Your task to perform on an android device: turn off javascript in the chrome app Image 0: 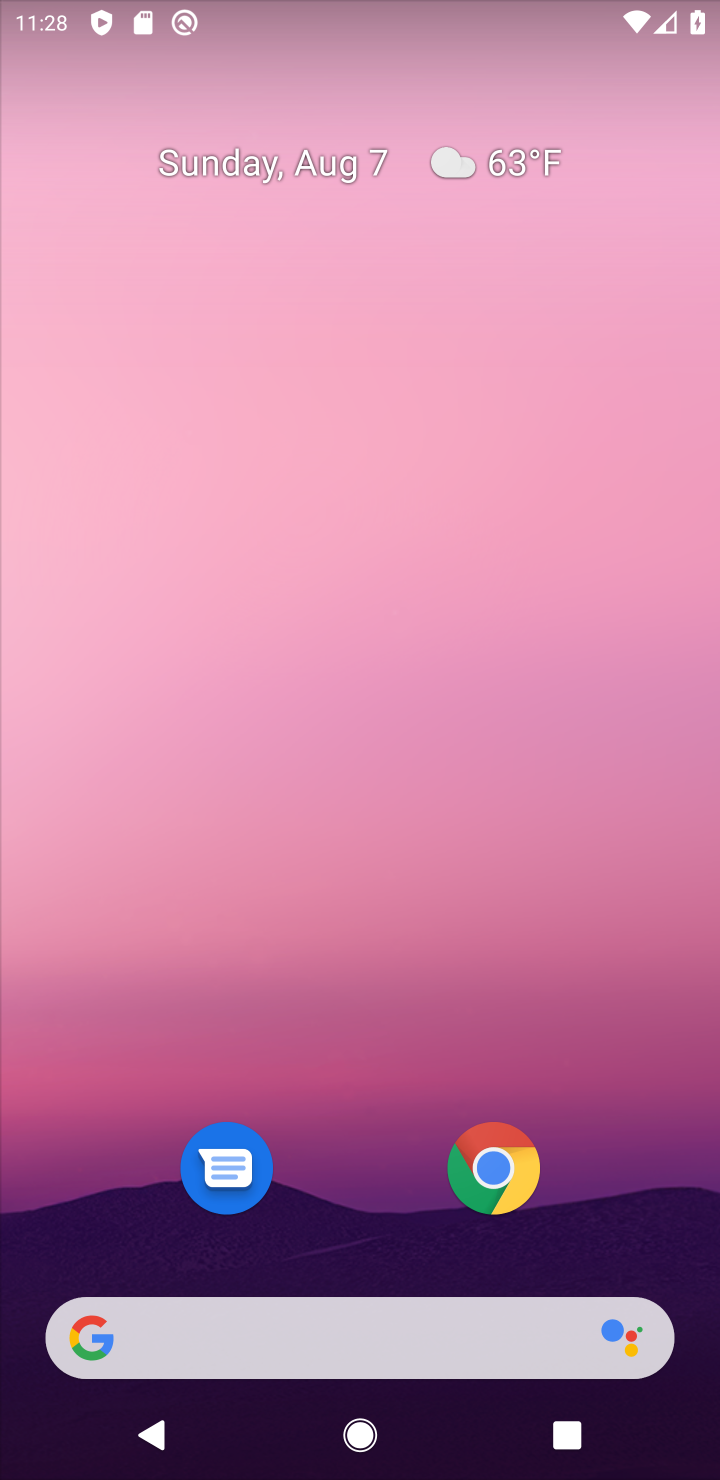
Step 0: press home button
Your task to perform on an android device: turn off javascript in the chrome app Image 1: 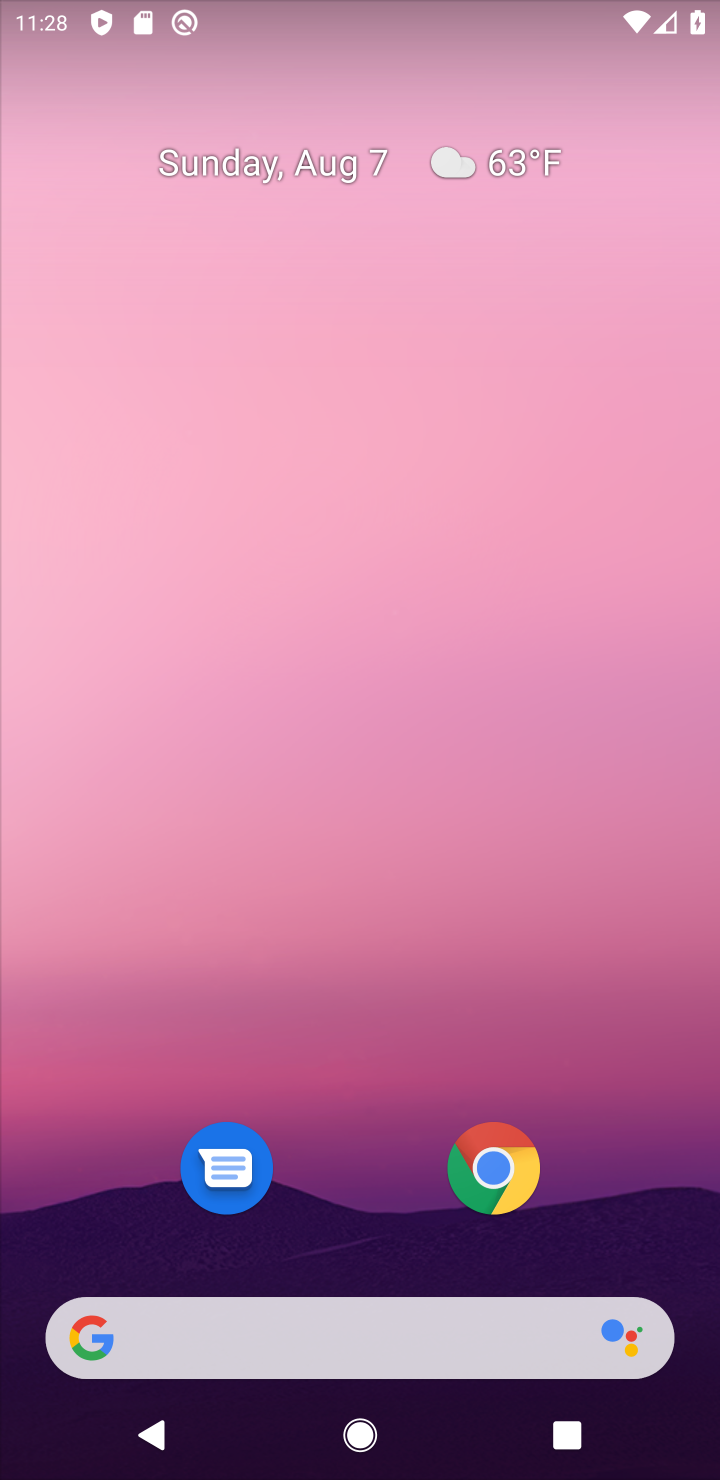
Step 1: click (483, 1194)
Your task to perform on an android device: turn off javascript in the chrome app Image 2: 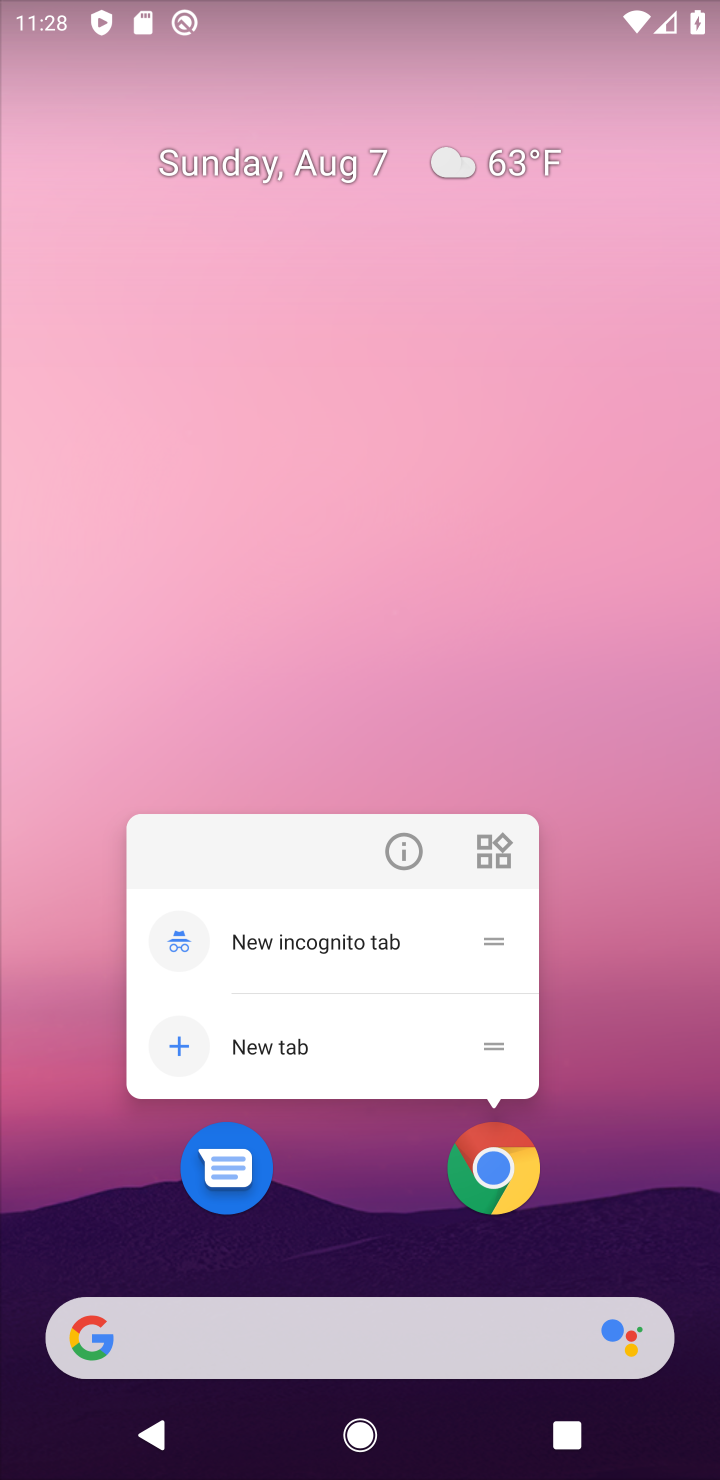
Step 2: click (483, 1194)
Your task to perform on an android device: turn off javascript in the chrome app Image 3: 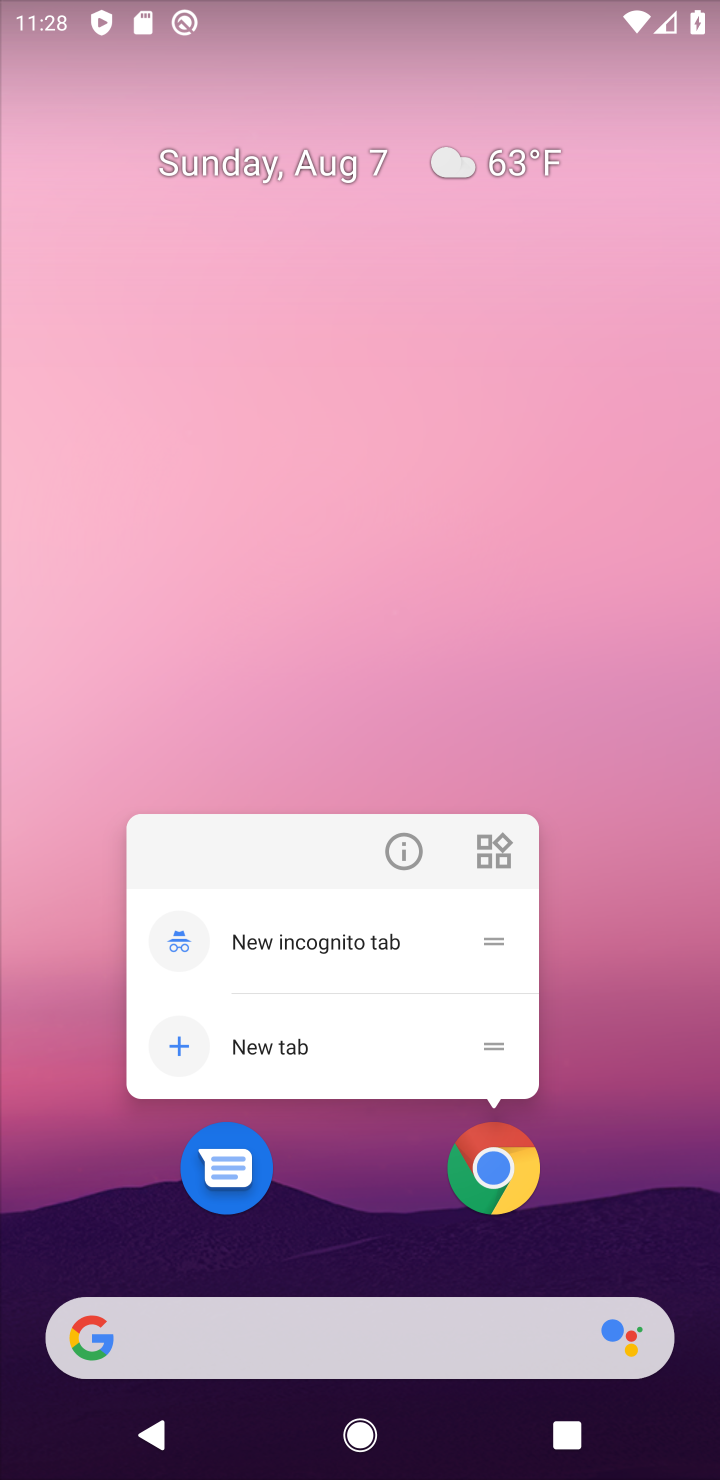
Step 3: click (489, 1187)
Your task to perform on an android device: turn off javascript in the chrome app Image 4: 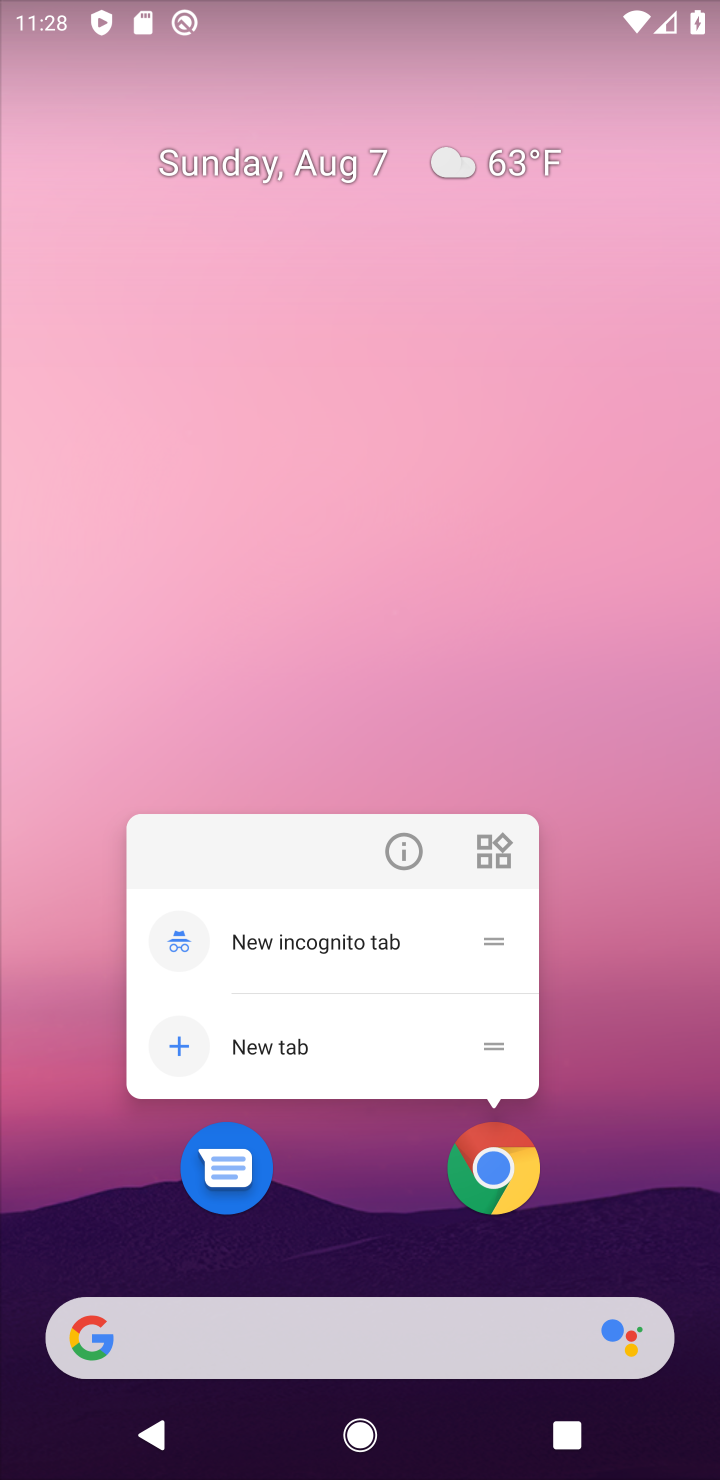
Step 4: click (491, 1174)
Your task to perform on an android device: turn off javascript in the chrome app Image 5: 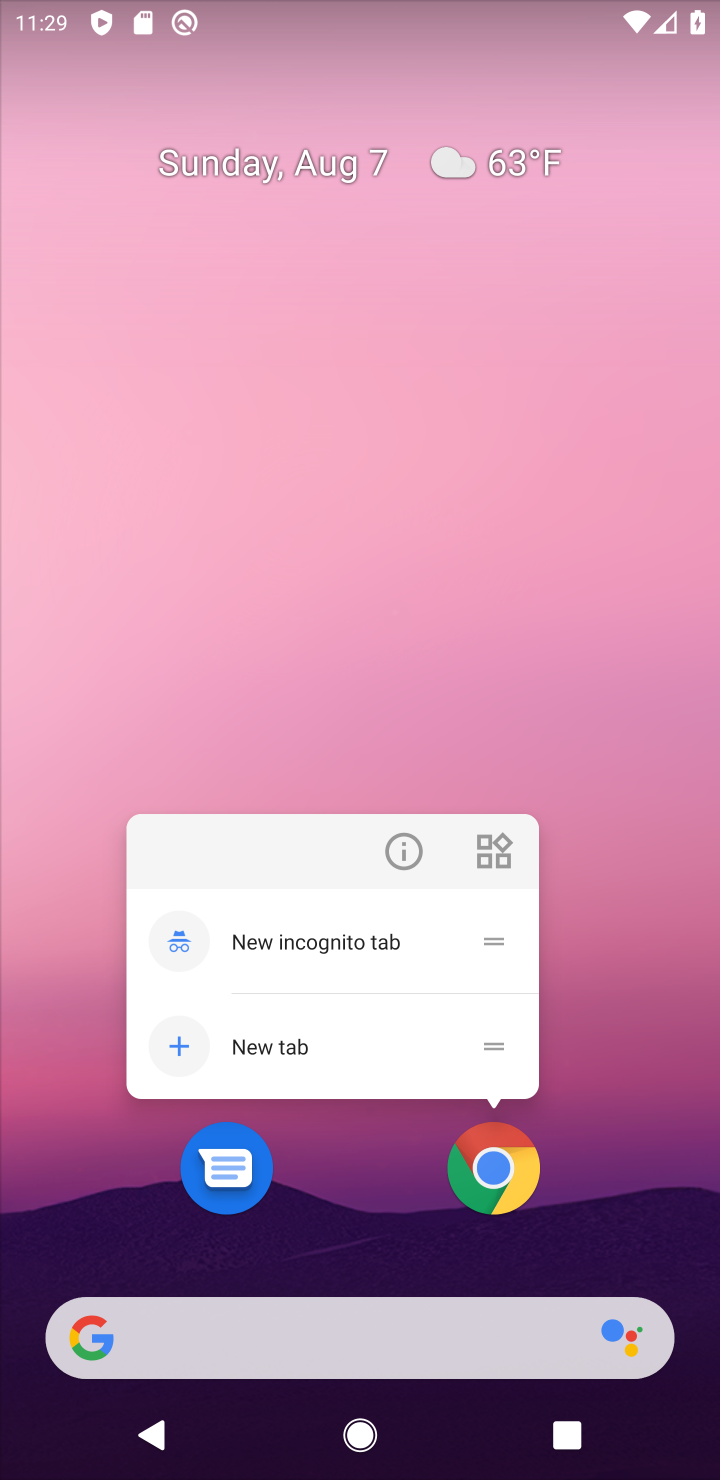
Step 5: drag from (641, 1186) to (455, 97)
Your task to perform on an android device: turn off javascript in the chrome app Image 6: 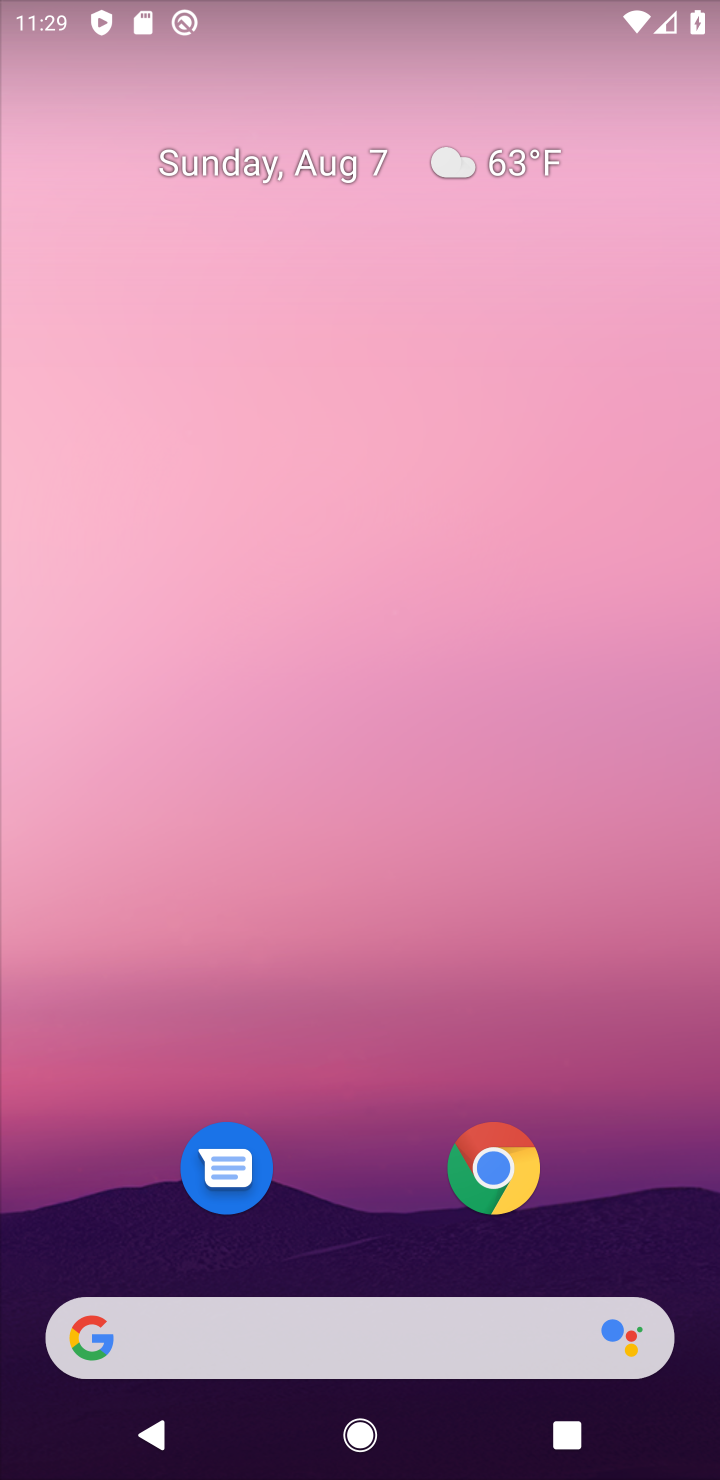
Step 6: drag from (346, 1252) to (272, 81)
Your task to perform on an android device: turn off javascript in the chrome app Image 7: 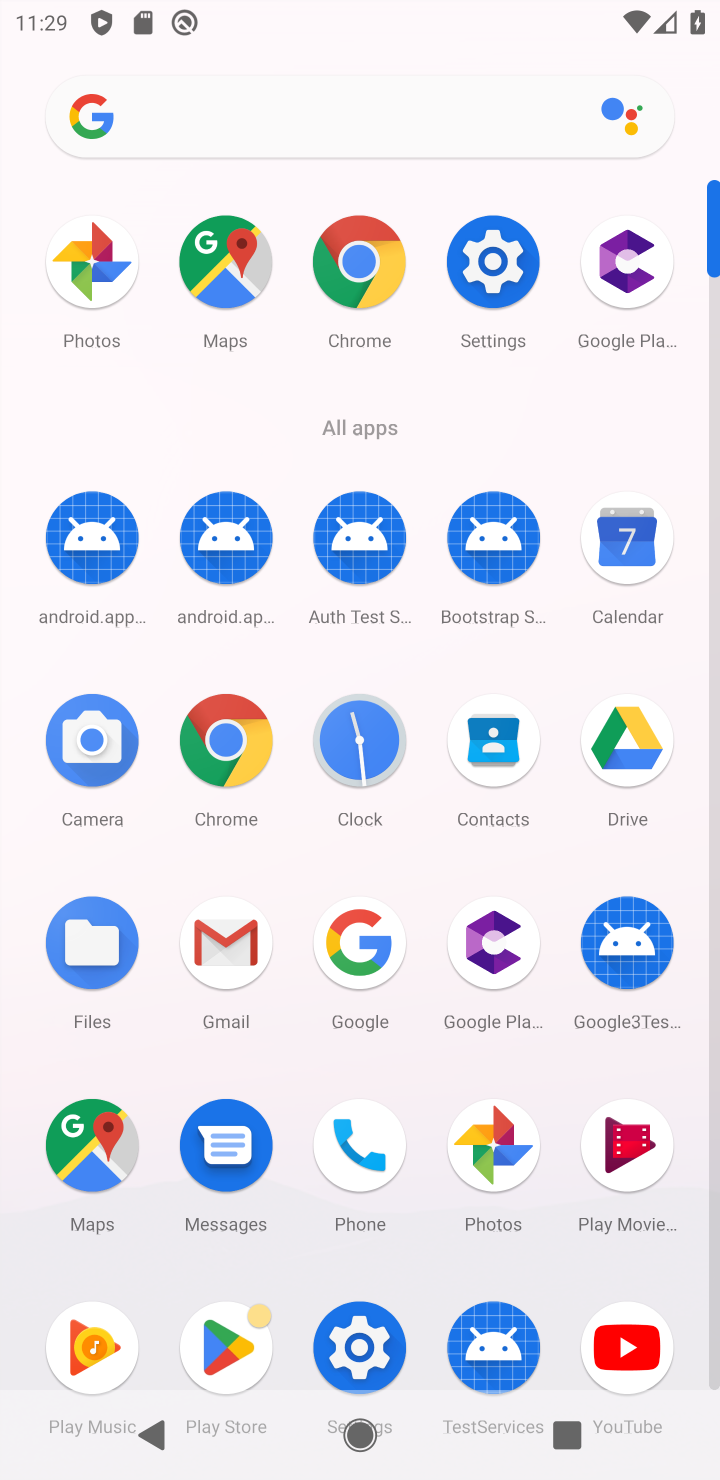
Step 7: click (349, 285)
Your task to perform on an android device: turn off javascript in the chrome app Image 8: 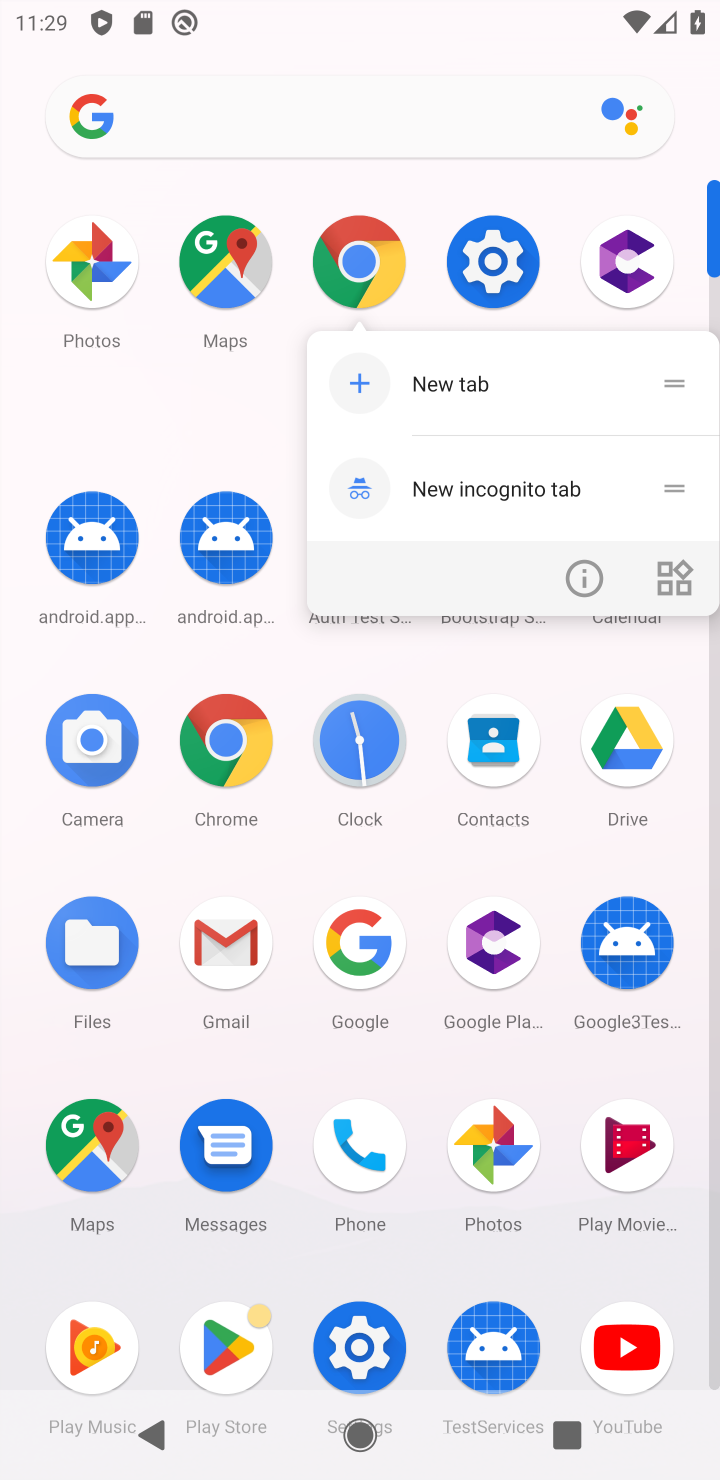
Step 8: click (349, 285)
Your task to perform on an android device: turn off javascript in the chrome app Image 9: 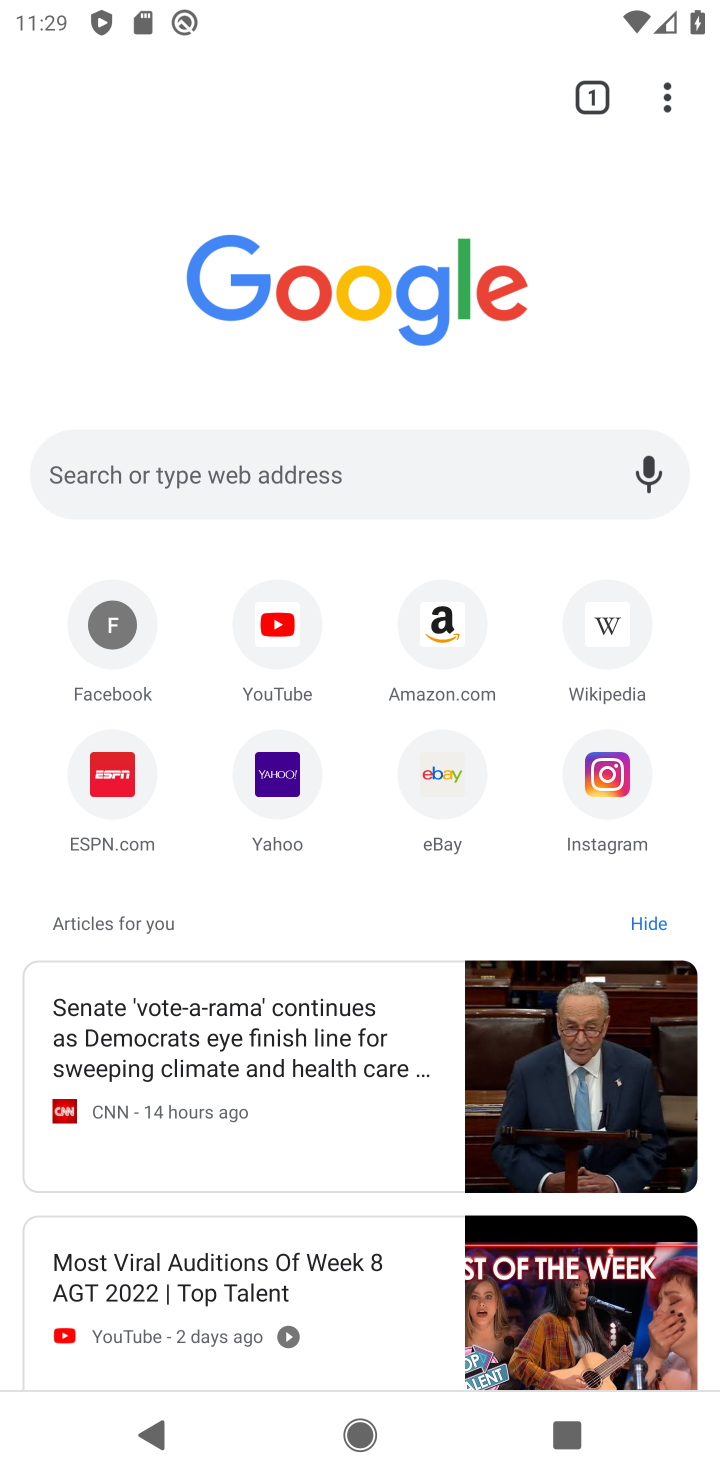
Step 9: drag from (668, 93) to (311, 926)
Your task to perform on an android device: turn off javascript in the chrome app Image 10: 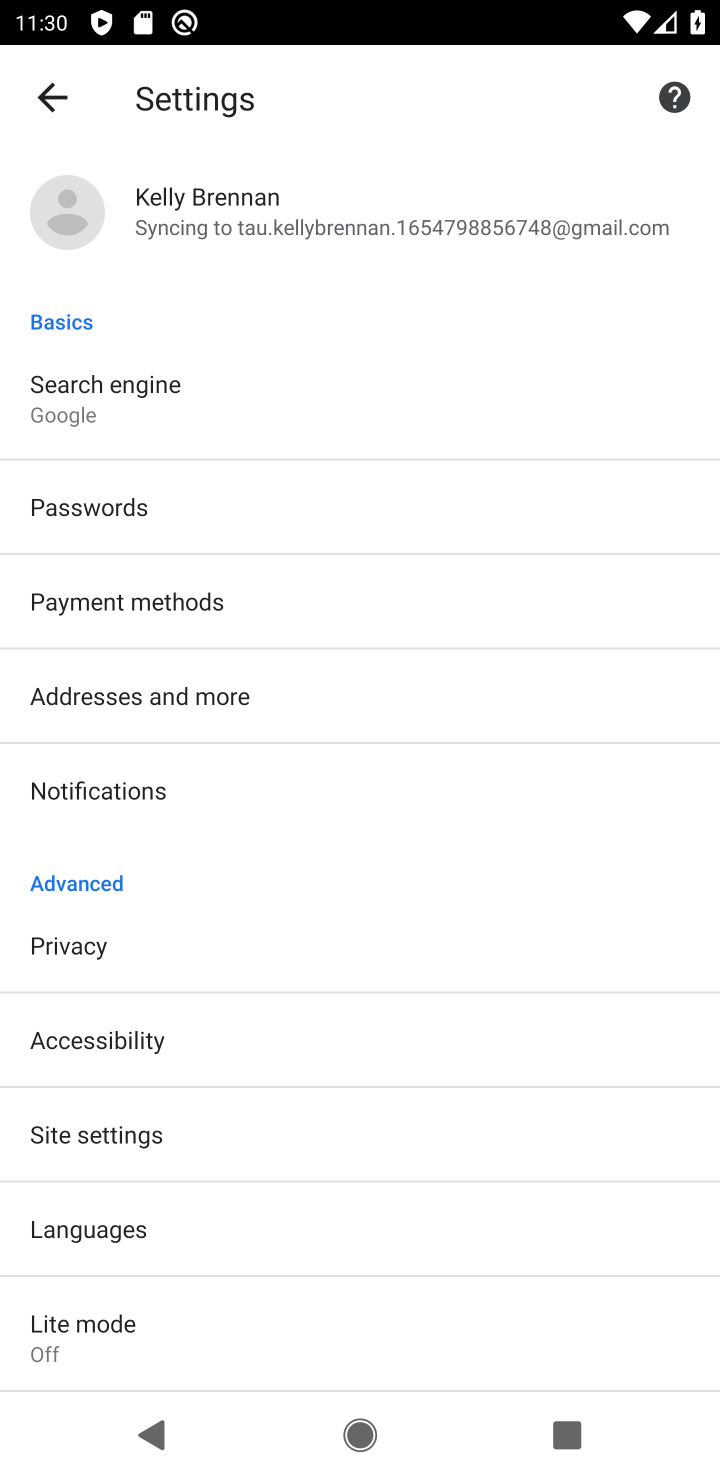
Step 10: drag from (441, 1187) to (354, 314)
Your task to perform on an android device: turn off javascript in the chrome app Image 11: 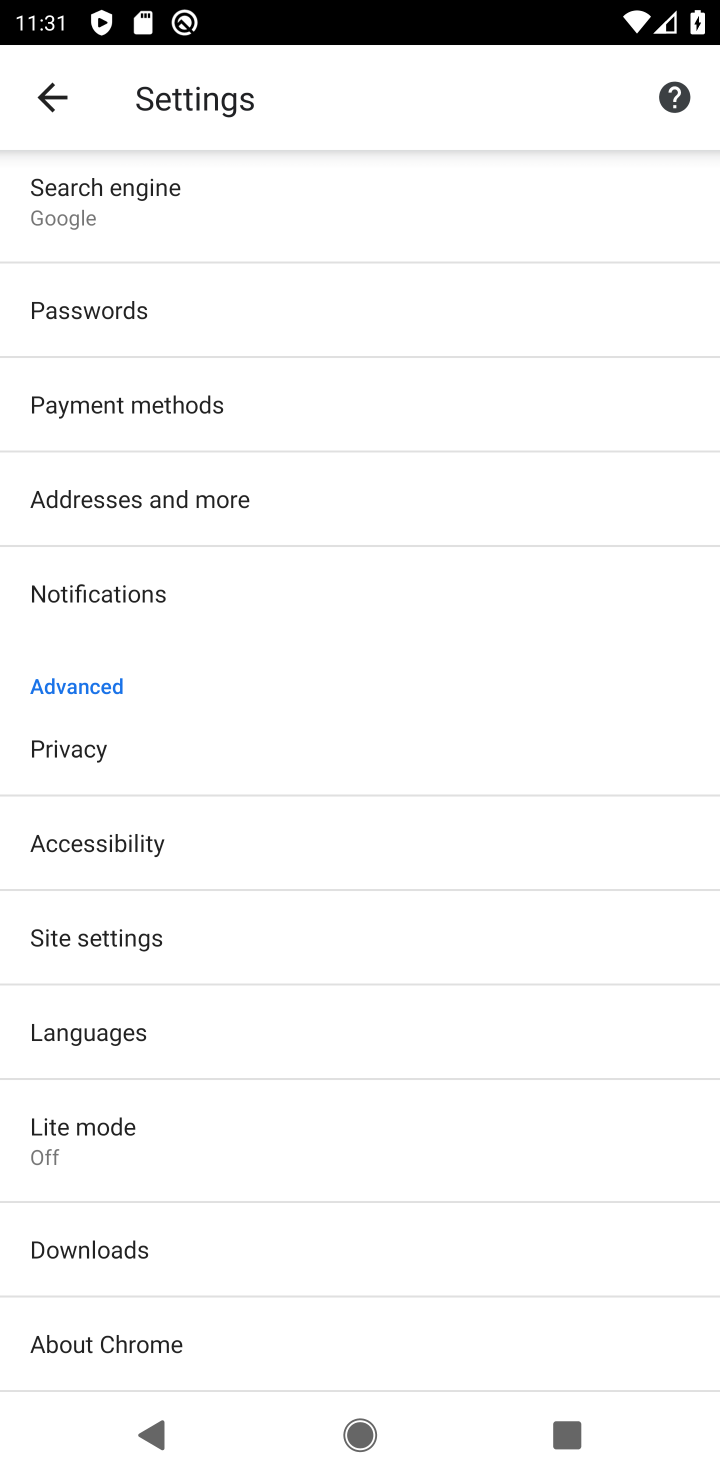
Step 11: click (110, 940)
Your task to perform on an android device: turn off javascript in the chrome app Image 12: 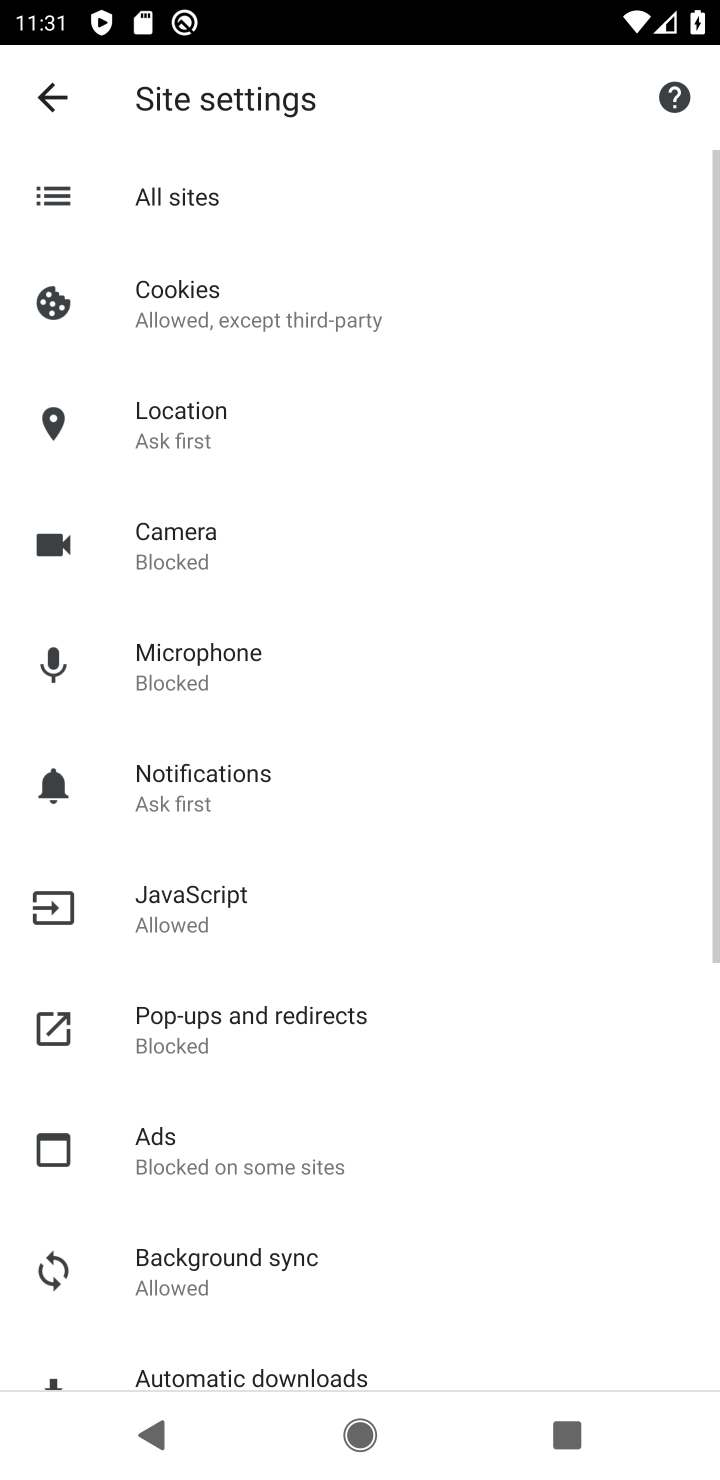
Step 12: click (154, 915)
Your task to perform on an android device: turn off javascript in the chrome app Image 13: 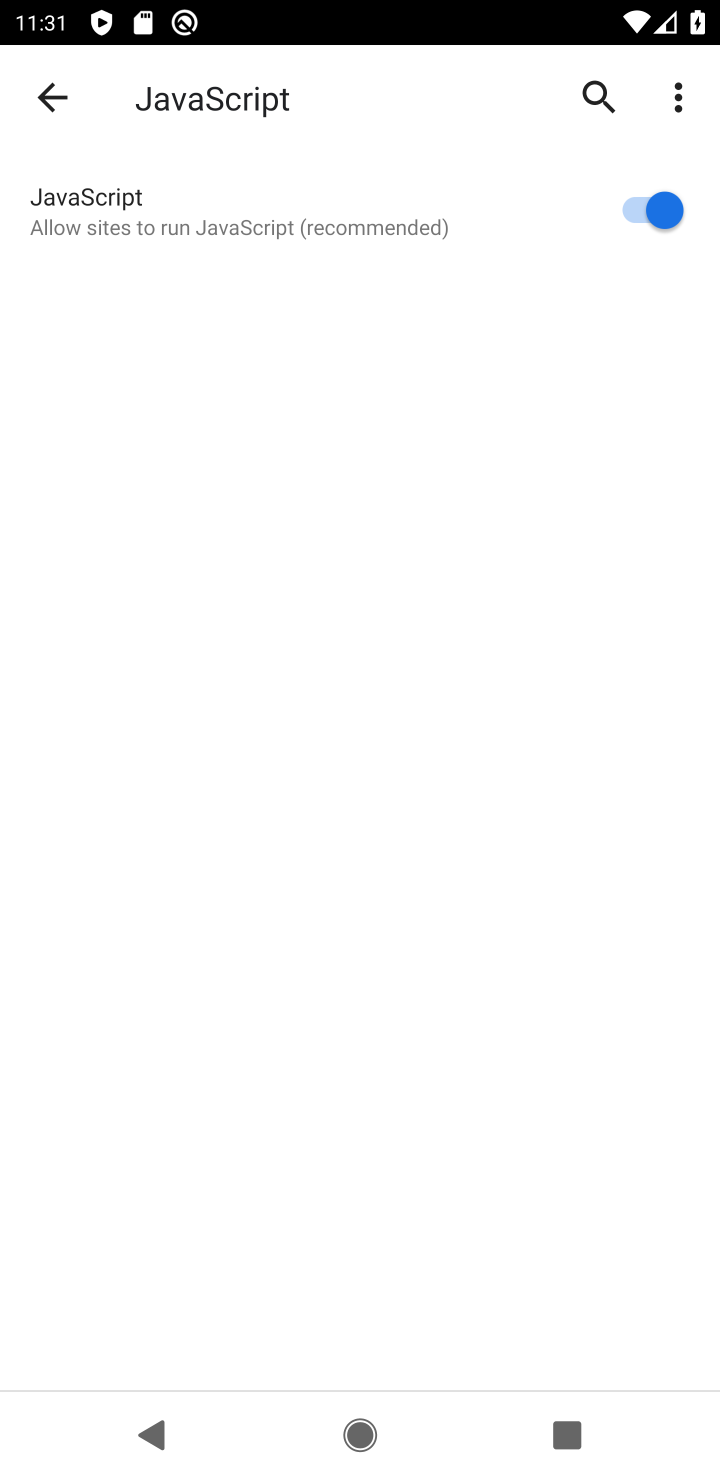
Step 13: click (648, 214)
Your task to perform on an android device: turn off javascript in the chrome app Image 14: 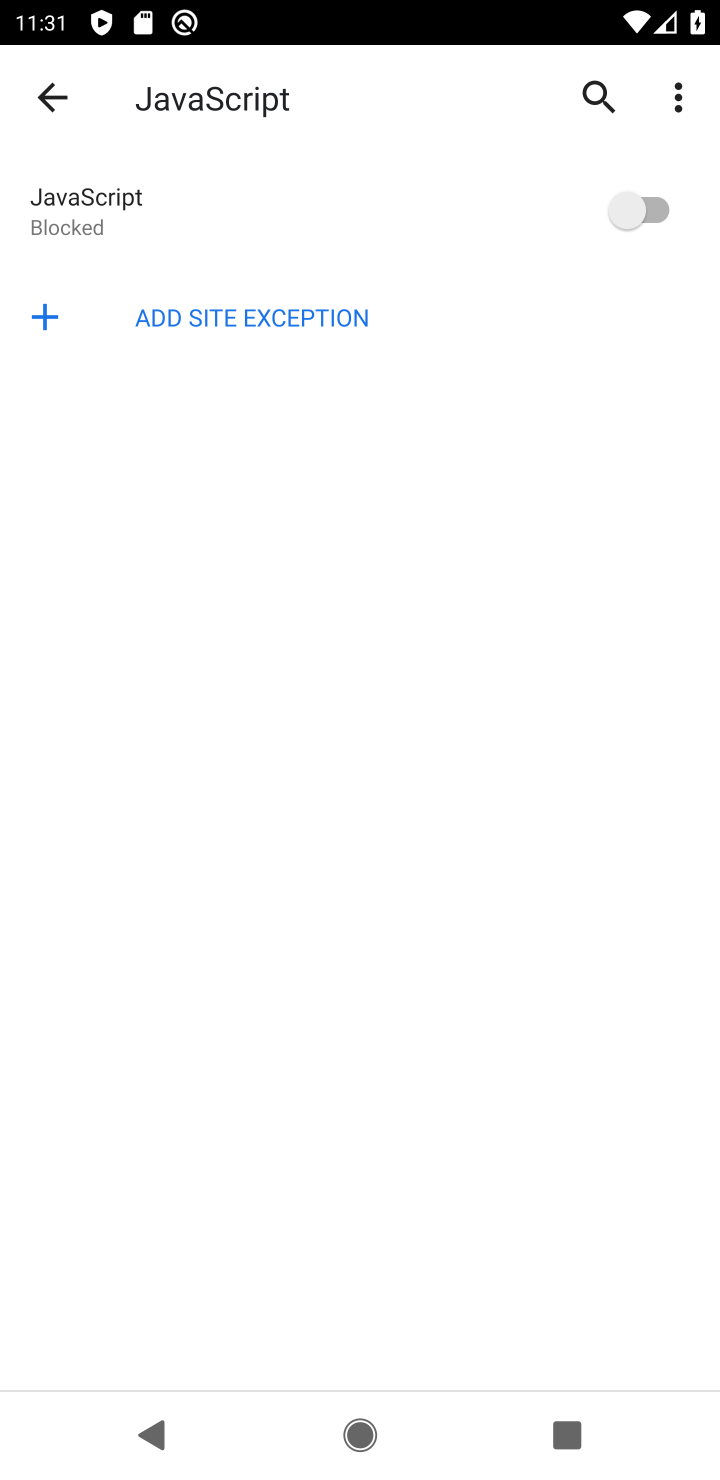
Step 14: task complete